Your task to perform on an android device: turn off translation in the chrome app Image 0: 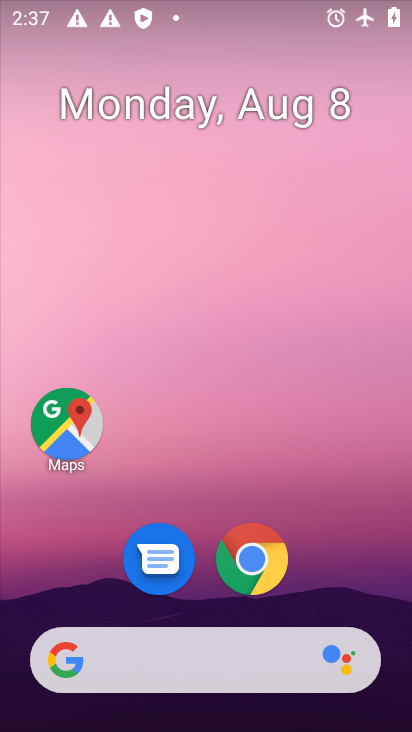
Step 0: click (249, 555)
Your task to perform on an android device: turn off translation in the chrome app Image 1: 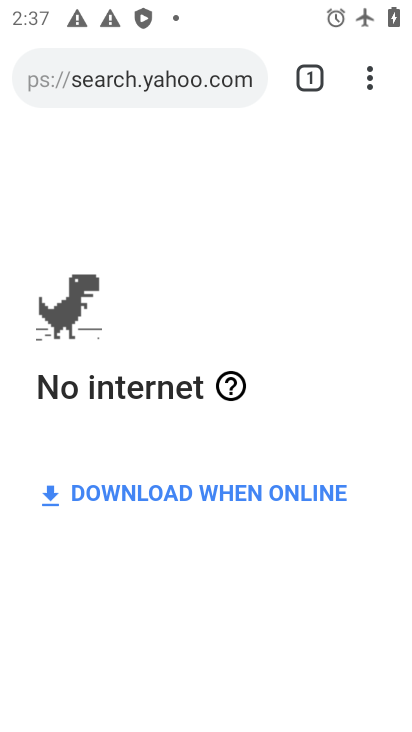
Step 1: click (370, 77)
Your task to perform on an android device: turn off translation in the chrome app Image 2: 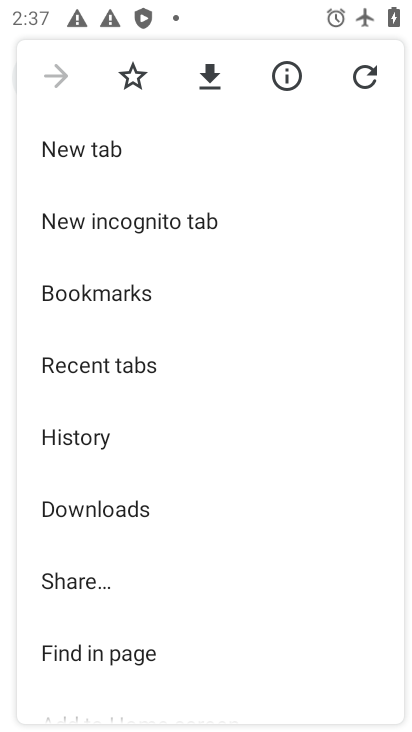
Step 2: drag from (135, 580) to (179, 479)
Your task to perform on an android device: turn off translation in the chrome app Image 3: 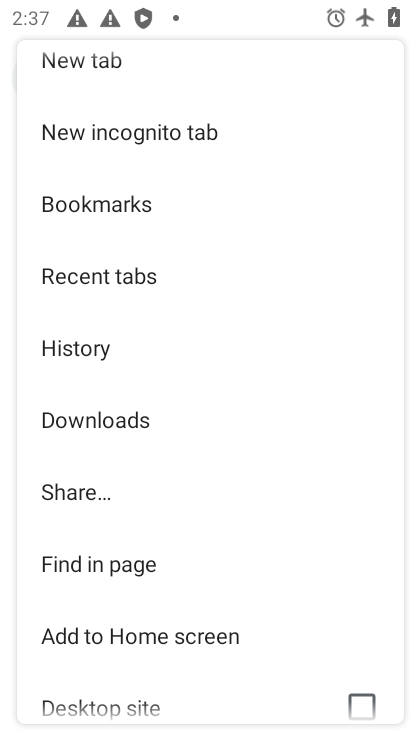
Step 3: drag from (129, 594) to (223, 473)
Your task to perform on an android device: turn off translation in the chrome app Image 4: 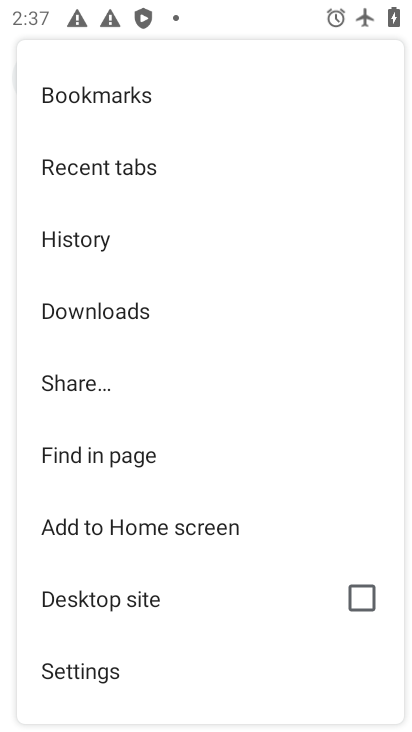
Step 4: click (101, 656)
Your task to perform on an android device: turn off translation in the chrome app Image 5: 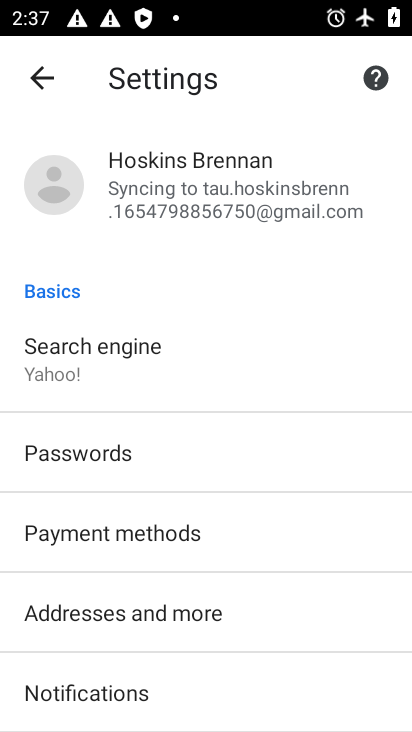
Step 5: drag from (147, 539) to (202, 445)
Your task to perform on an android device: turn off translation in the chrome app Image 6: 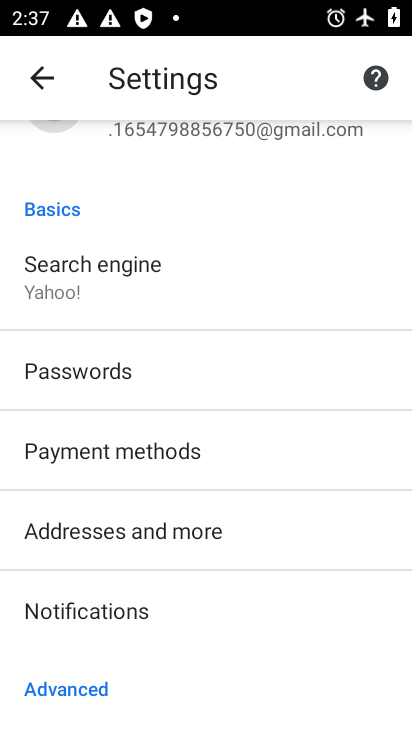
Step 6: drag from (160, 583) to (231, 482)
Your task to perform on an android device: turn off translation in the chrome app Image 7: 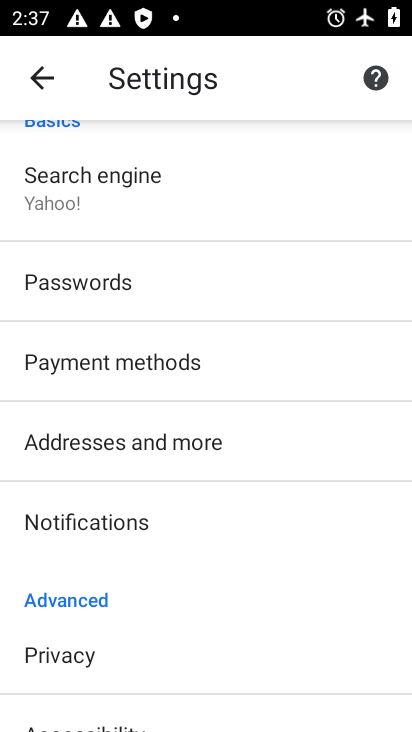
Step 7: drag from (141, 638) to (220, 534)
Your task to perform on an android device: turn off translation in the chrome app Image 8: 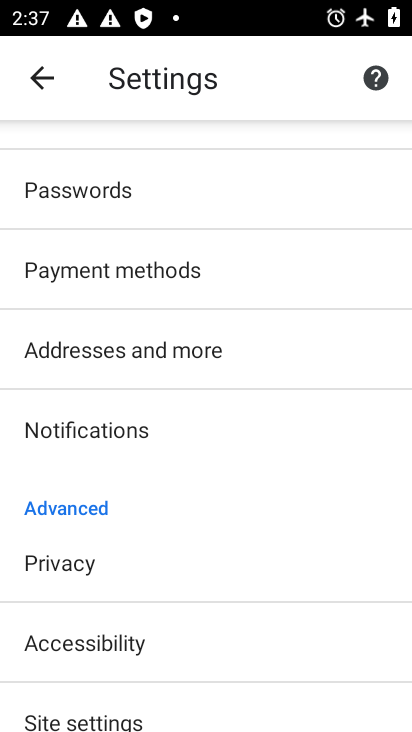
Step 8: drag from (162, 623) to (232, 508)
Your task to perform on an android device: turn off translation in the chrome app Image 9: 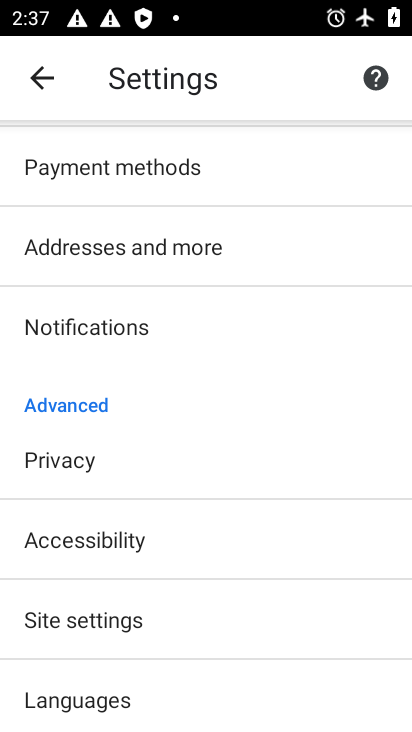
Step 9: drag from (166, 670) to (259, 549)
Your task to perform on an android device: turn off translation in the chrome app Image 10: 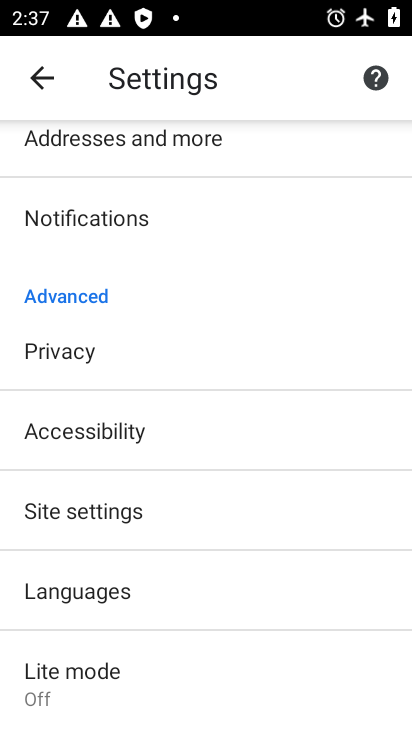
Step 10: click (113, 590)
Your task to perform on an android device: turn off translation in the chrome app Image 11: 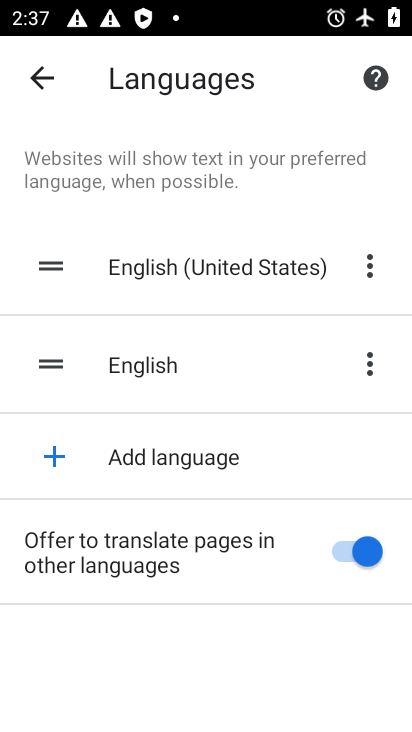
Step 11: click (344, 549)
Your task to perform on an android device: turn off translation in the chrome app Image 12: 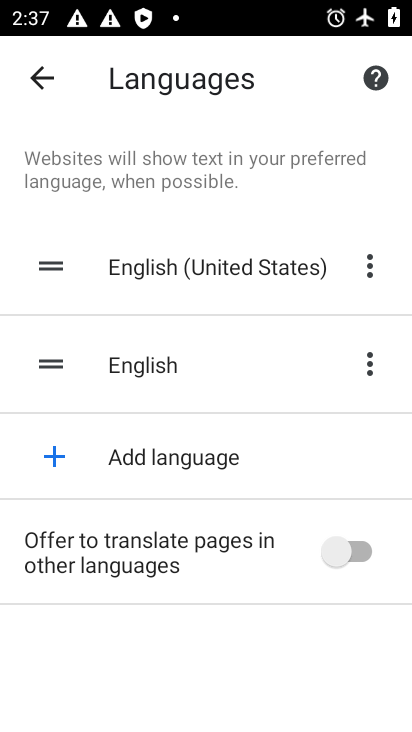
Step 12: task complete